Your task to perform on an android device: Open Youtube and go to the subscriptions tab Image 0: 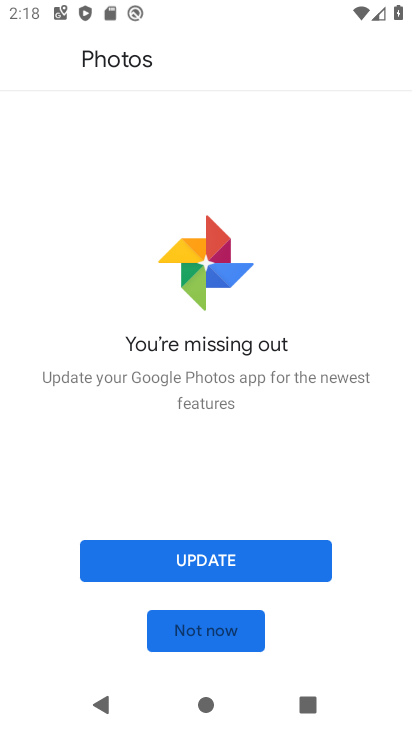
Step 0: press home button
Your task to perform on an android device: Open Youtube and go to the subscriptions tab Image 1: 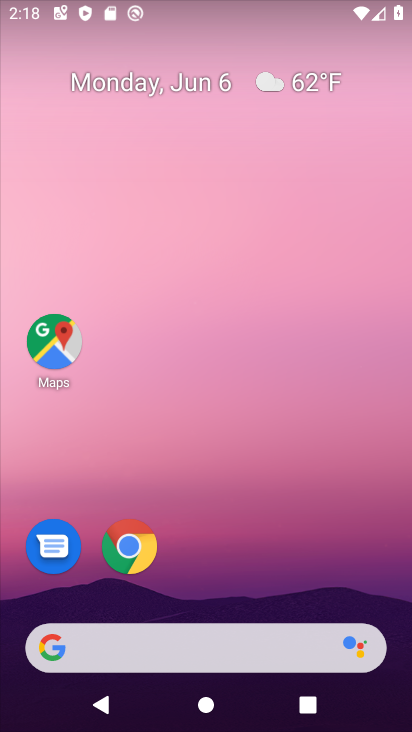
Step 1: drag from (225, 502) to (213, 162)
Your task to perform on an android device: Open Youtube and go to the subscriptions tab Image 2: 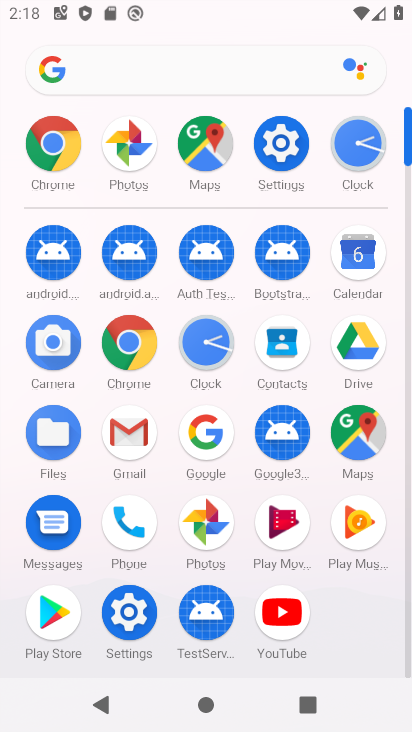
Step 2: click (278, 609)
Your task to perform on an android device: Open Youtube and go to the subscriptions tab Image 3: 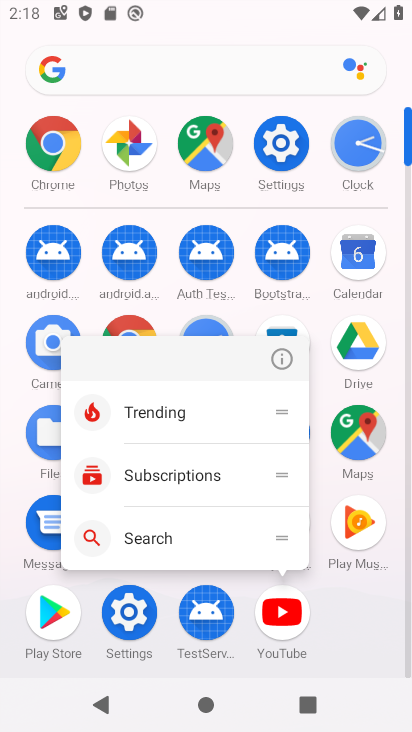
Step 3: click (278, 609)
Your task to perform on an android device: Open Youtube and go to the subscriptions tab Image 4: 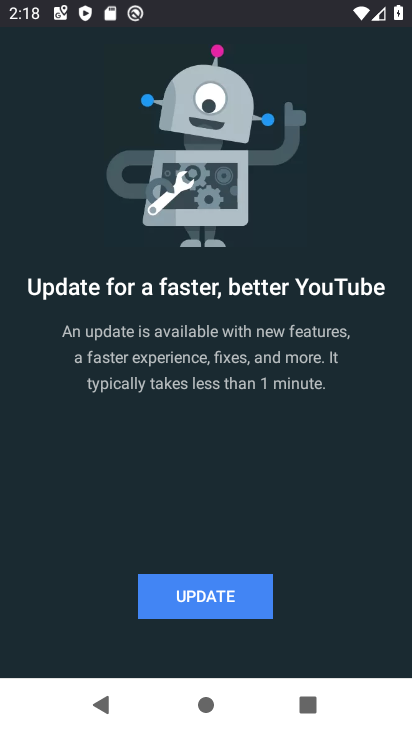
Step 4: click (222, 603)
Your task to perform on an android device: Open Youtube and go to the subscriptions tab Image 5: 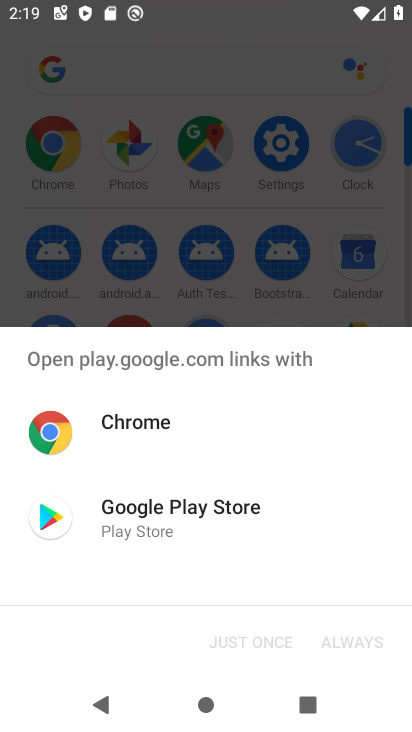
Step 5: click (159, 537)
Your task to perform on an android device: Open Youtube and go to the subscriptions tab Image 6: 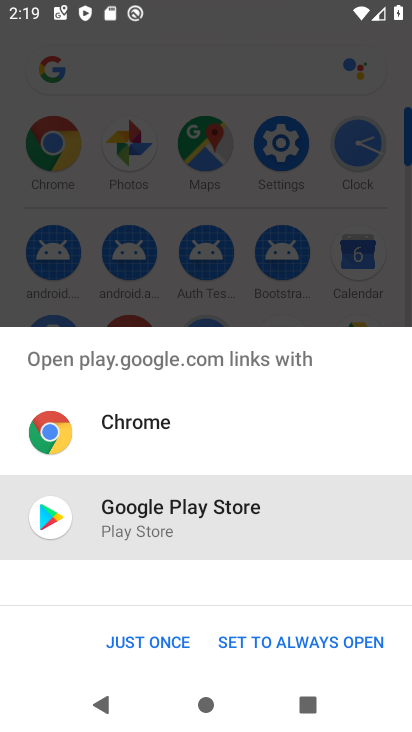
Step 6: click (146, 639)
Your task to perform on an android device: Open Youtube and go to the subscriptions tab Image 7: 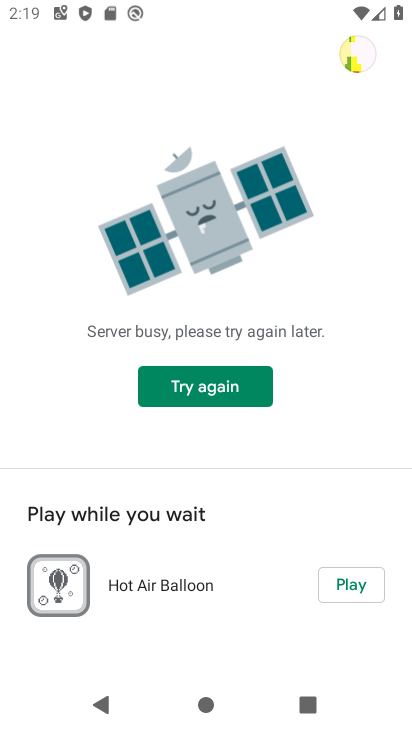
Step 7: task complete